Your task to perform on an android device: delete the emails in spam in the gmail app Image 0: 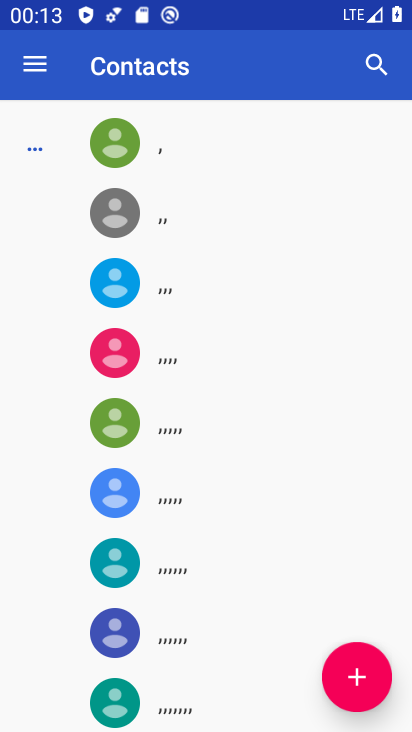
Step 0: press home button
Your task to perform on an android device: delete the emails in spam in the gmail app Image 1: 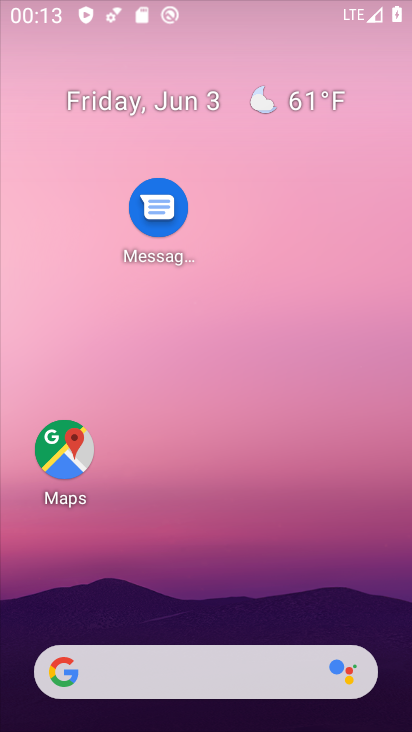
Step 1: drag from (185, 610) to (137, 53)
Your task to perform on an android device: delete the emails in spam in the gmail app Image 2: 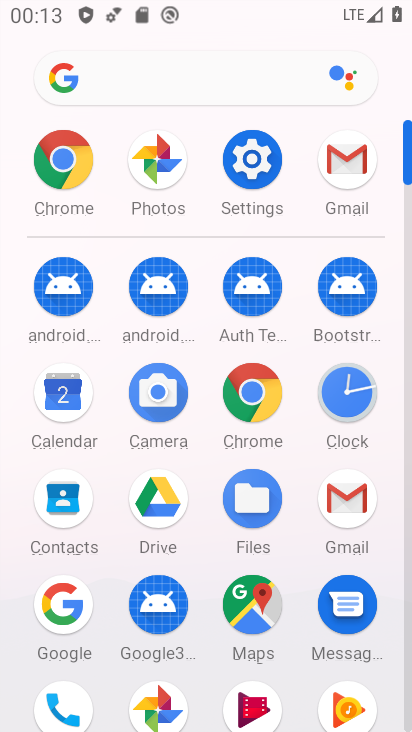
Step 2: click (346, 482)
Your task to perform on an android device: delete the emails in spam in the gmail app Image 3: 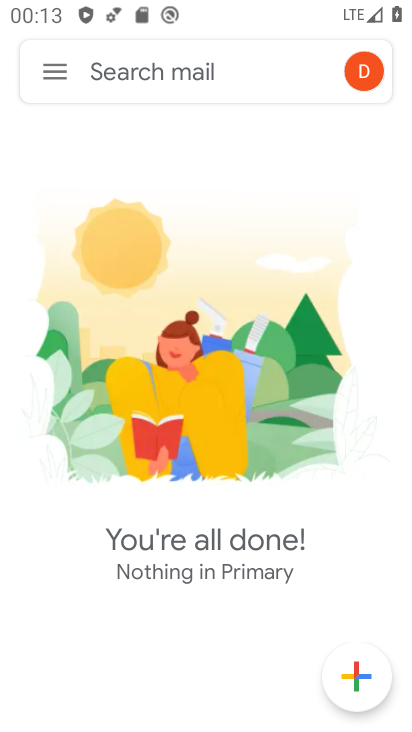
Step 3: click (57, 73)
Your task to perform on an android device: delete the emails in spam in the gmail app Image 4: 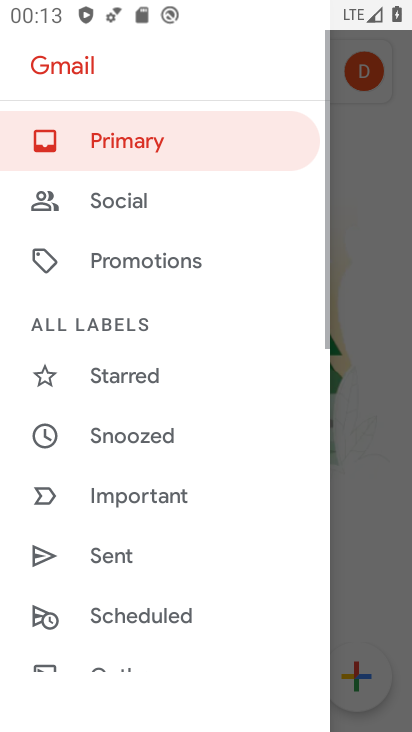
Step 4: drag from (169, 554) to (103, 32)
Your task to perform on an android device: delete the emails in spam in the gmail app Image 5: 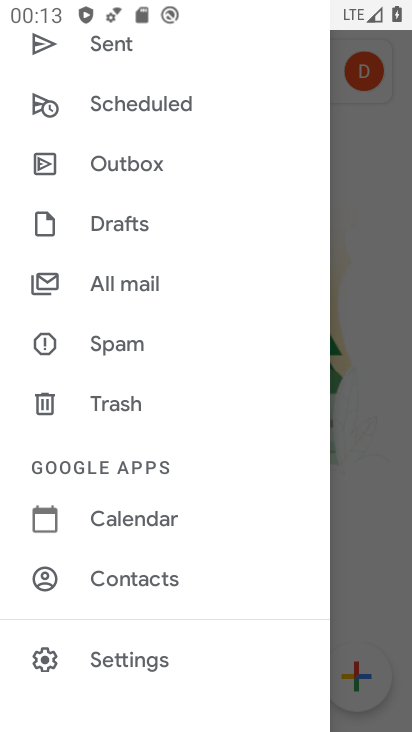
Step 5: drag from (109, 79) to (125, 233)
Your task to perform on an android device: delete the emails in spam in the gmail app Image 6: 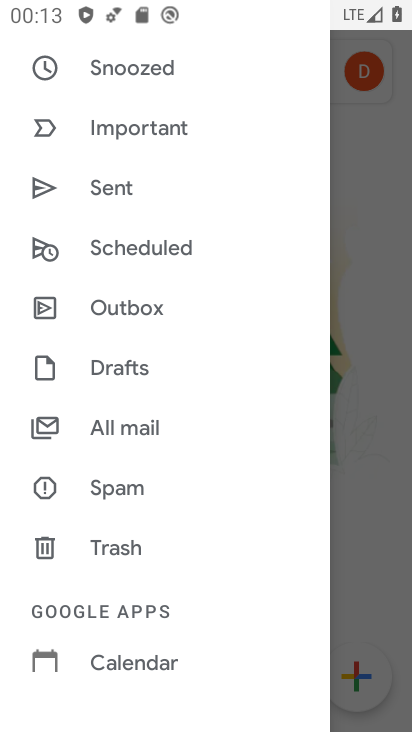
Step 6: click (118, 471)
Your task to perform on an android device: delete the emails in spam in the gmail app Image 7: 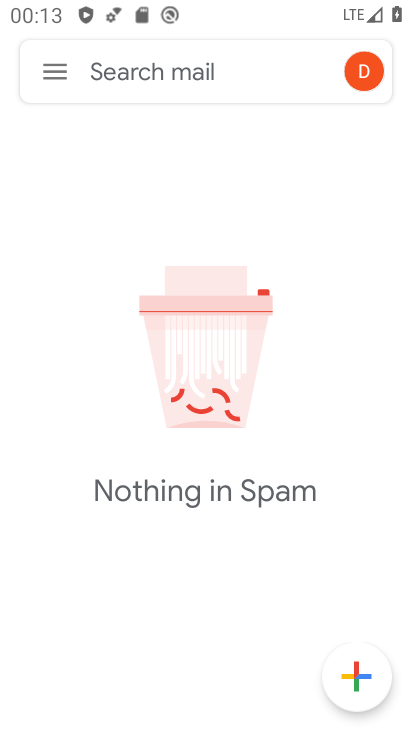
Step 7: task complete